Your task to perform on an android device: turn smart compose on in the gmail app Image 0: 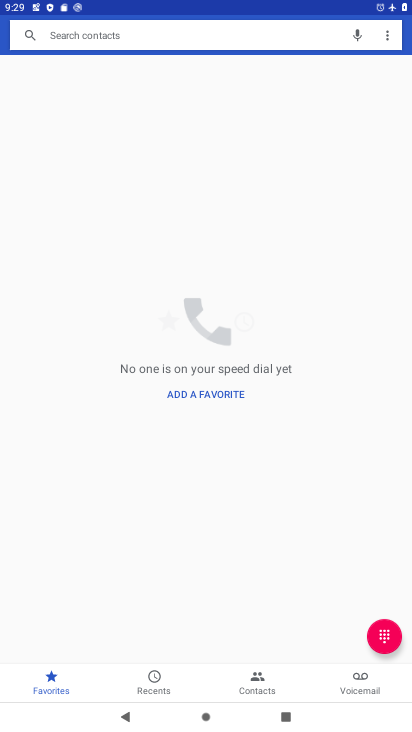
Step 0: press home button
Your task to perform on an android device: turn smart compose on in the gmail app Image 1: 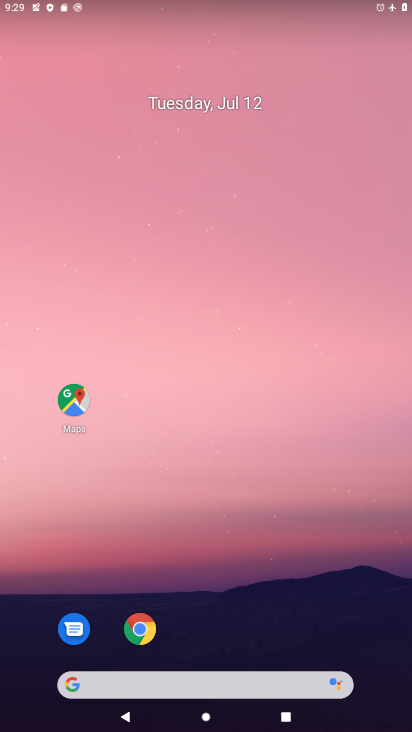
Step 1: drag from (271, 580) to (266, 146)
Your task to perform on an android device: turn smart compose on in the gmail app Image 2: 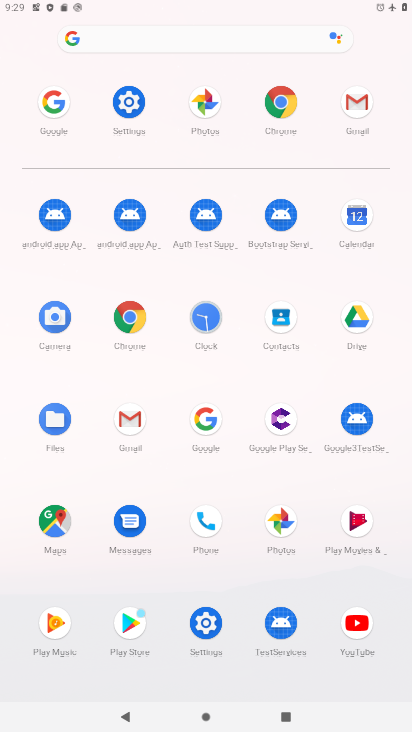
Step 2: click (352, 102)
Your task to perform on an android device: turn smart compose on in the gmail app Image 3: 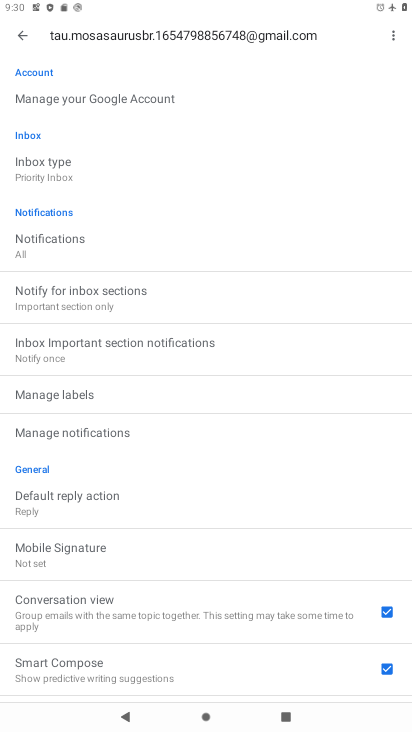
Step 3: task complete